Your task to perform on an android device: Go to display settings Image 0: 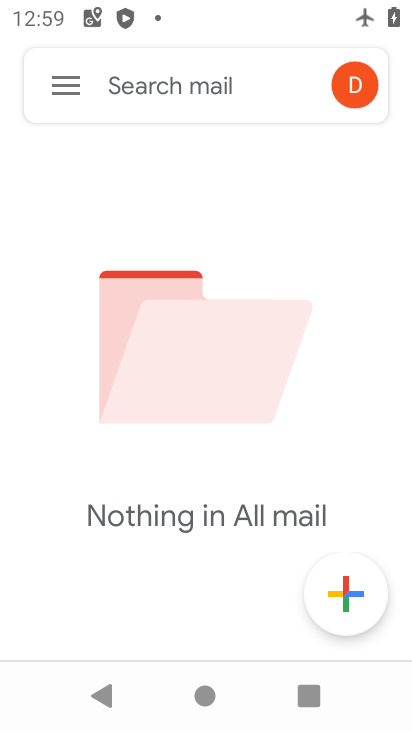
Step 0: press home button
Your task to perform on an android device: Go to display settings Image 1: 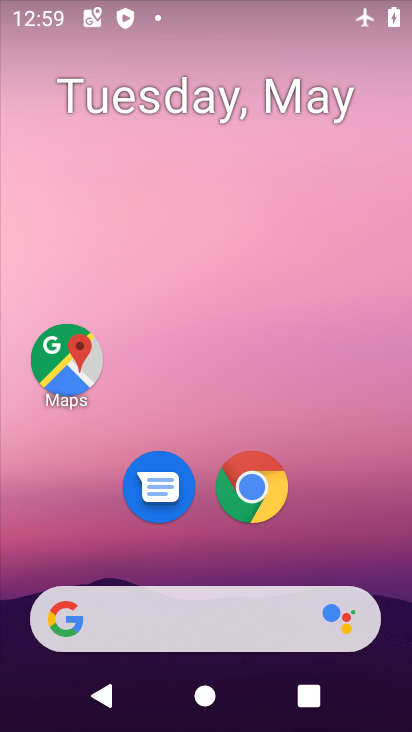
Step 1: drag from (321, 508) to (320, 57)
Your task to perform on an android device: Go to display settings Image 2: 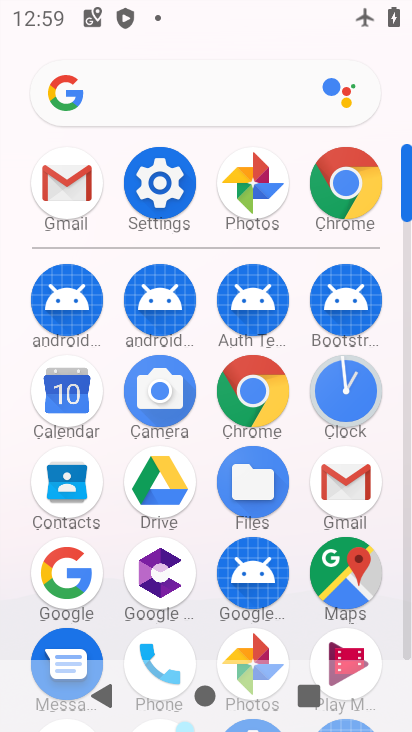
Step 2: click (153, 198)
Your task to perform on an android device: Go to display settings Image 3: 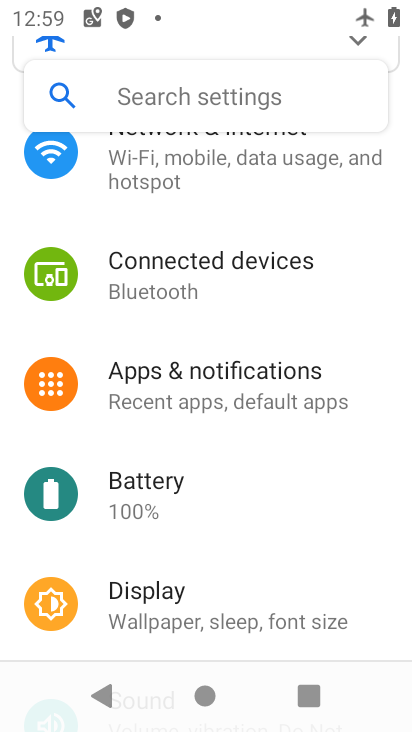
Step 3: click (211, 579)
Your task to perform on an android device: Go to display settings Image 4: 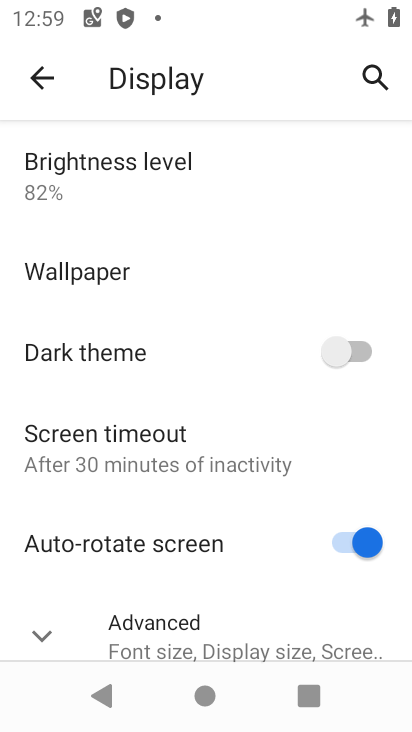
Step 4: task complete